Your task to perform on an android device: What's the weather going to be this weekend? Image 0: 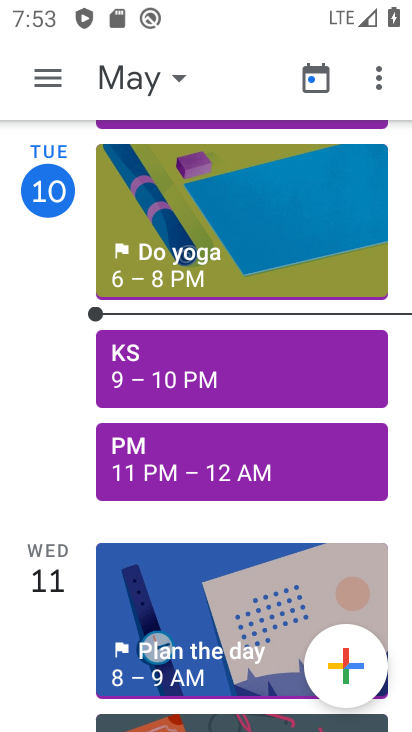
Step 0: press back button
Your task to perform on an android device: What's the weather going to be this weekend? Image 1: 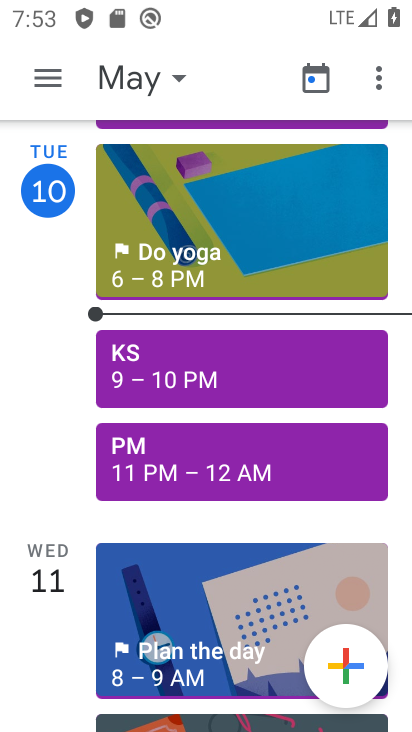
Step 1: press back button
Your task to perform on an android device: What's the weather going to be this weekend? Image 2: 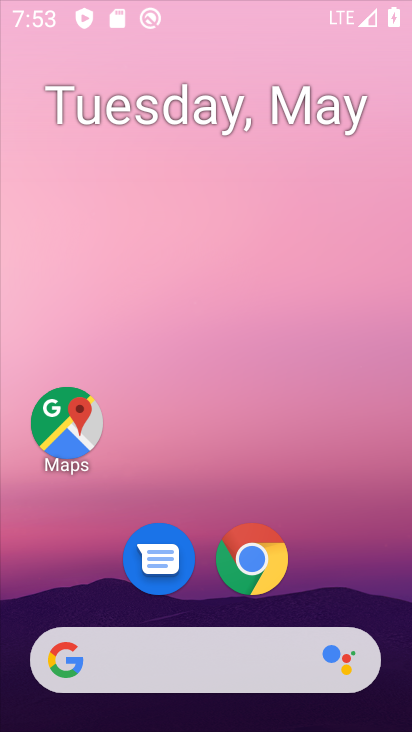
Step 2: press back button
Your task to perform on an android device: What's the weather going to be this weekend? Image 3: 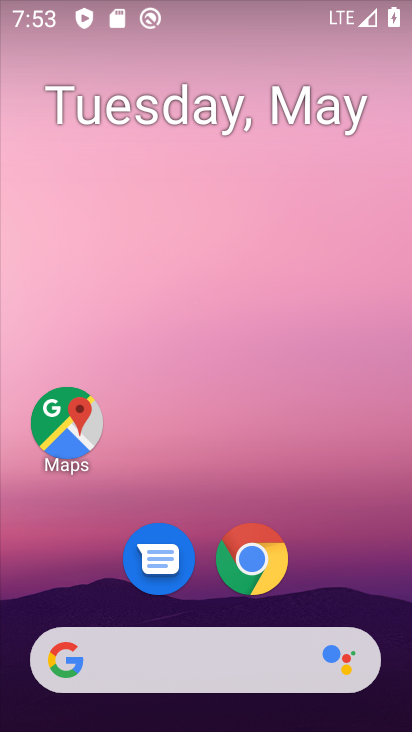
Step 3: press back button
Your task to perform on an android device: What's the weather going to be this weekend? Image 4: 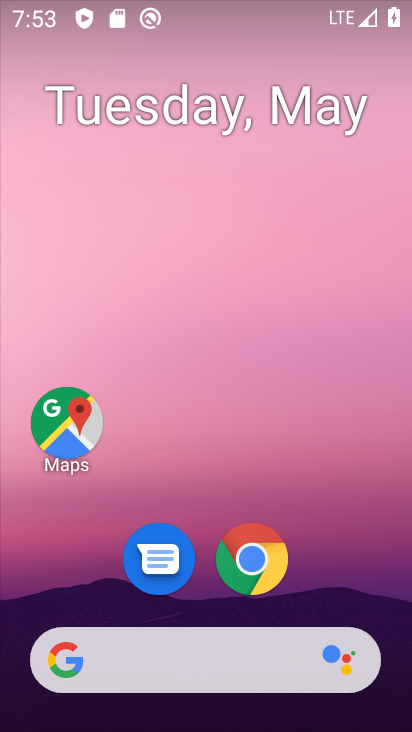
Step 4: drag from (1, 265) to (397, 248)
Your task to perform on an android device: What's the weather going to be this weekend? Image 5: 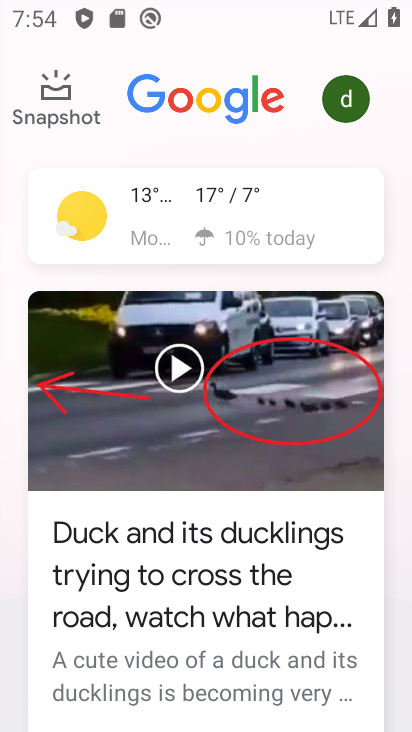
Step 5: click (230, 221)
Your task to perform on an android device: What's the weather going to be this weekend? Image 6: 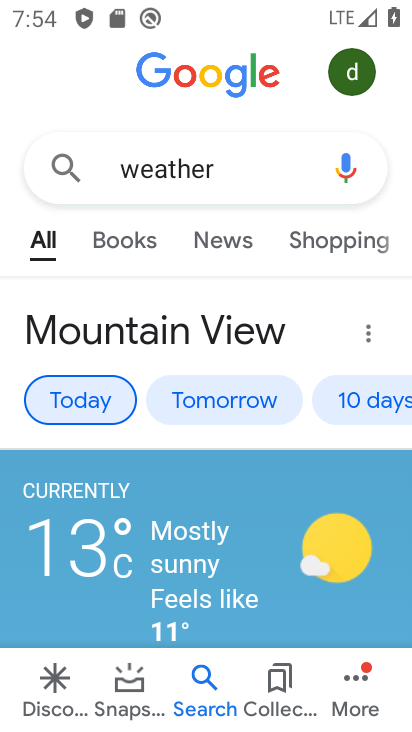
Step 6: task complete